Your task to perform on an android device: turn on bluetooth scan Image 0: 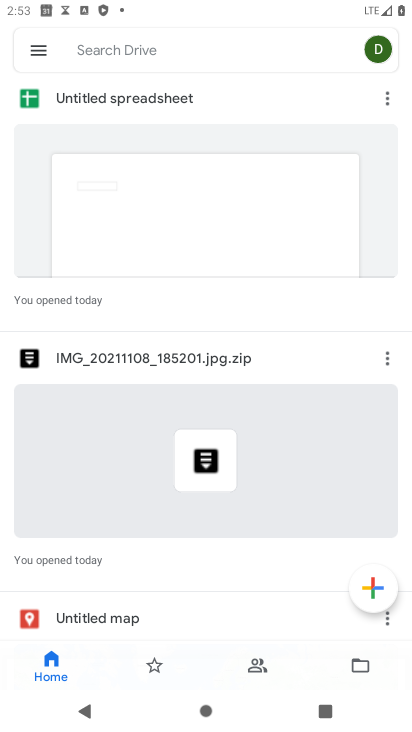
Step 0: press home button
Your task to perform on an android device: turn on bluetooth scan Image 1: 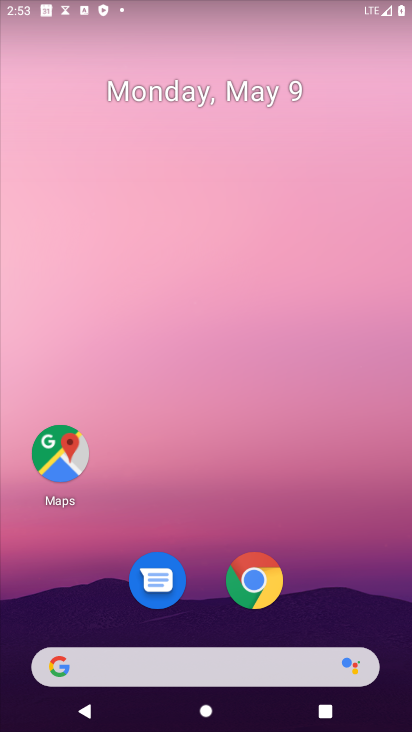
Step 1: drag from (352, 565) to (264, 132)
Your task to perform on an android device: turn on bluetooth scan Image 2: 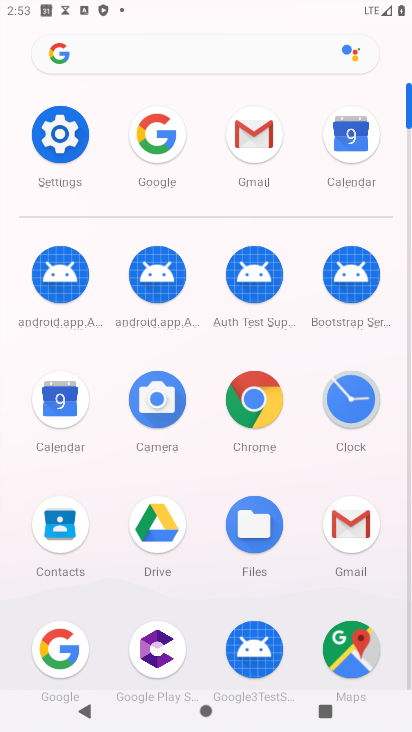
Step 2: click (71, 132)
Your task to perform on an android device: turn on bluetooth scan Image 3: 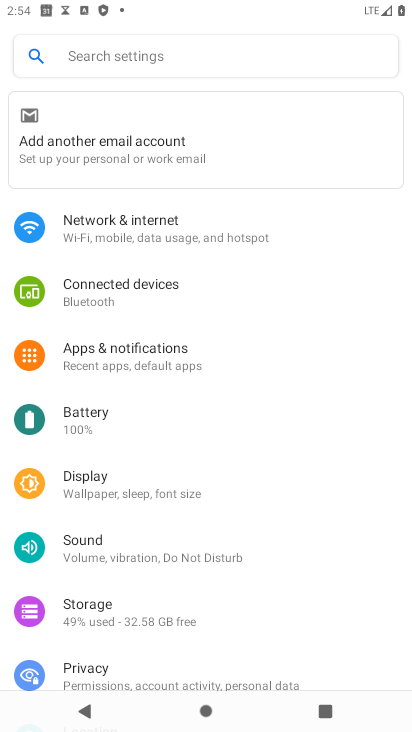
Step 3: drag from (183, 549) to (174, 277)
Your task to perform on an android device: turn on bluetooth scan Image 4: 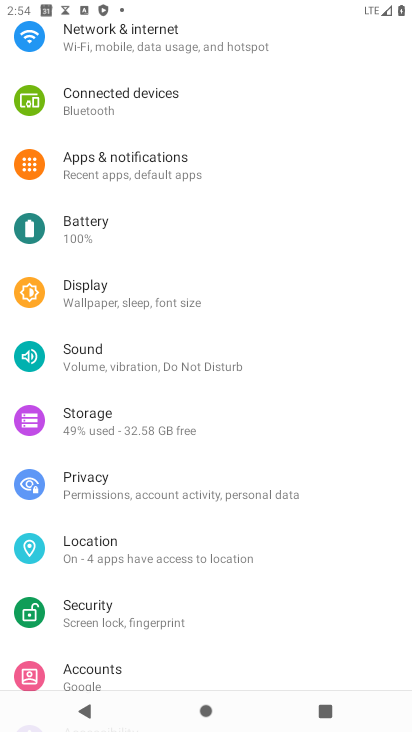
Step 4: click (155, 551)
Your task to perform on an android device: turn on bluetooth scan Image 5: 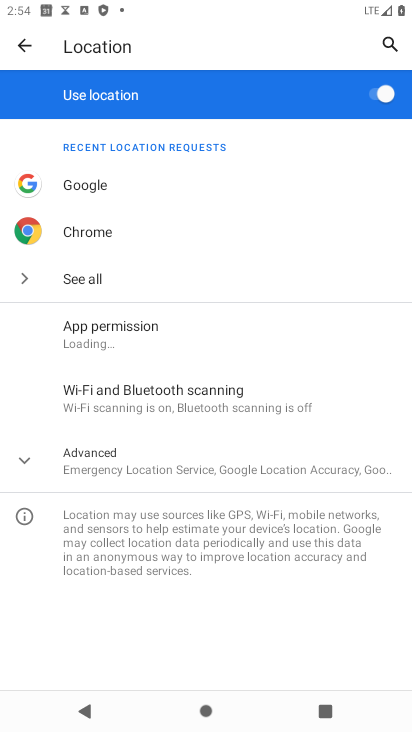
Step 5: click (186, 385)
Your task to perform on an android device: turn on bluetooth scan Image 6: 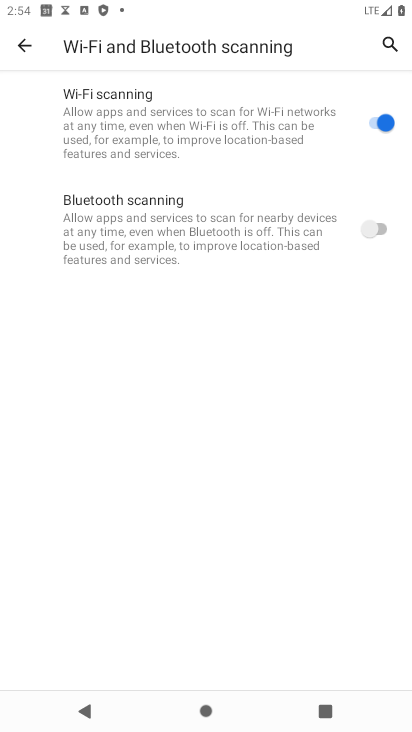
Step 6: click (377, 231)
Your task to perform on an android device: turn on bluetooth scan Image 7: 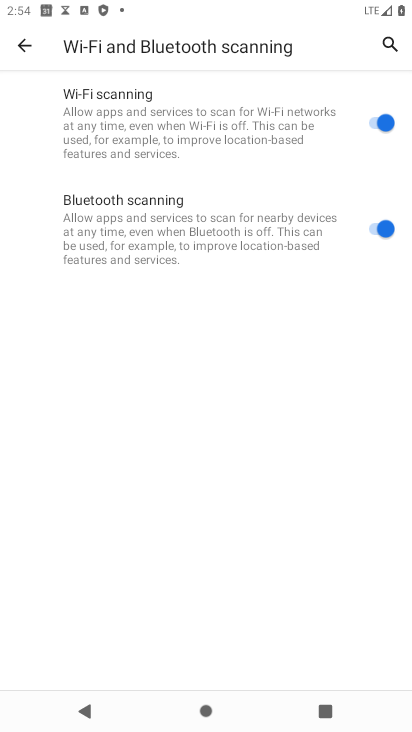
Step 7: task complete